Your task to perform on an android device: turn notification dots off Image 0: 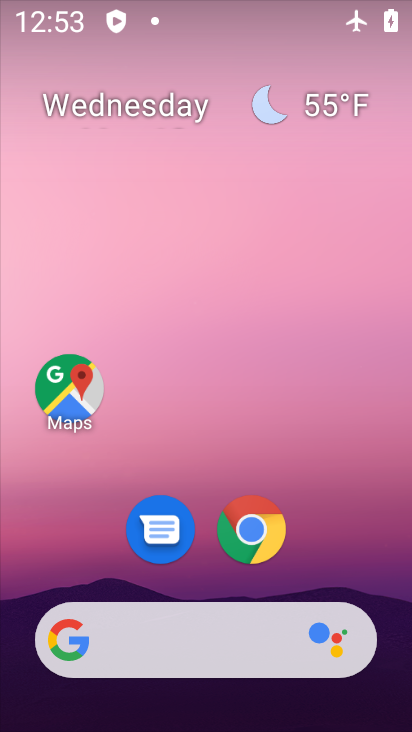
Step 0: drag from (229, 727) to (228, 123)
Your task to perform on an android device: turn notification dots off Image 1: 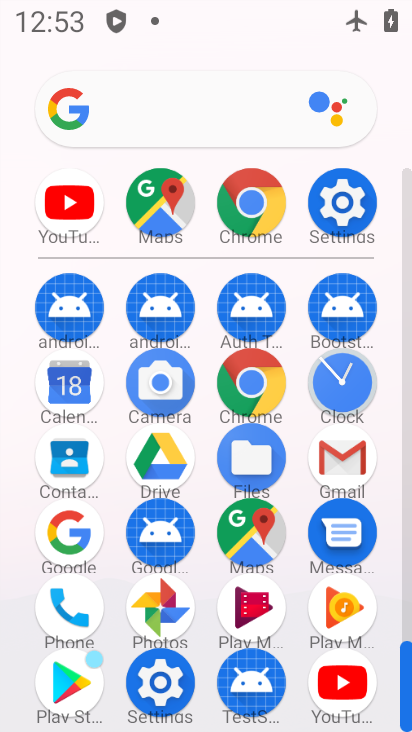
Step 1: click (334, 204)
Your task to perform on an android device: turn notification dots off Image 2: 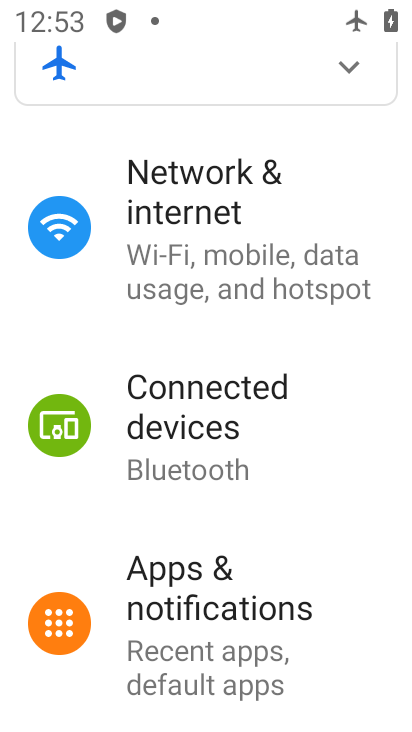
Step 2: click (210, 600)
Your task to perform on an android device: turn notification dots off Image 3: 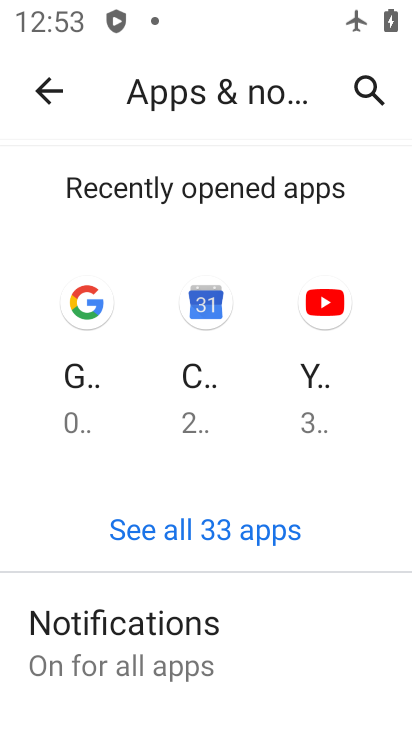
Step 3: drag from (189, 663) to (213, 356)
Your task to perform on an android device: turn notification dots off Image 4: 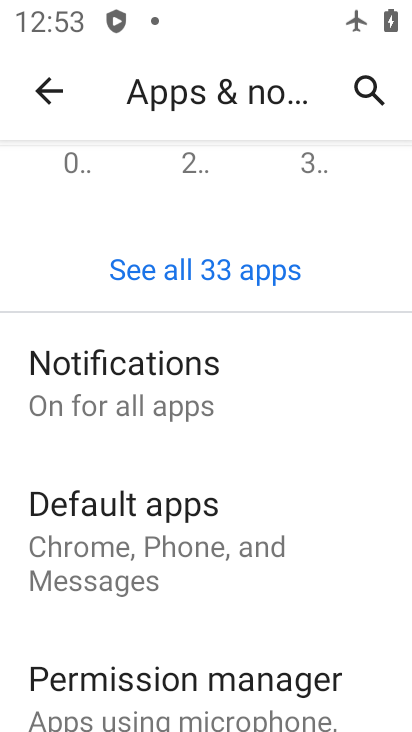
Step 4: click (164, 378)
Your task to perform on an android device: turn notification dots off Image 5: 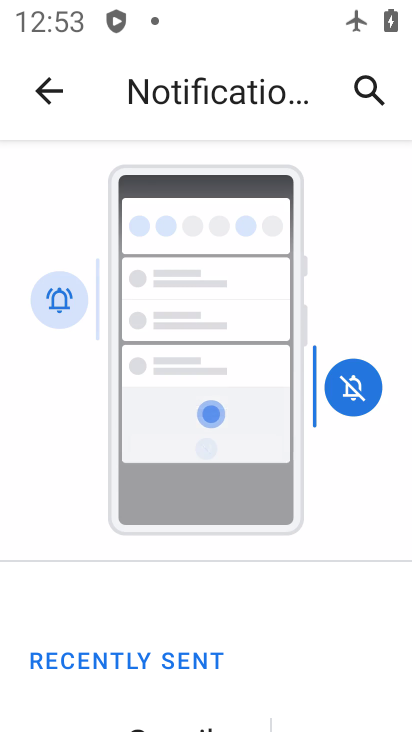
Step 5: drag from (253, 705) to (251, 400)
Your task to perform on an android device: turn notification dots off Image 6: 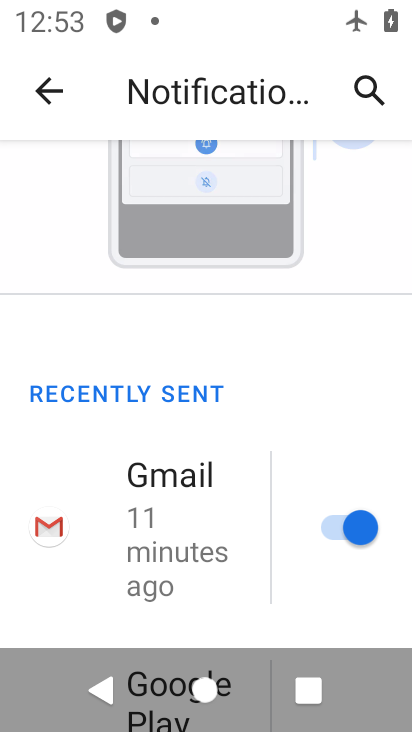
Step 6: drag from (257, 625) to (254, 351)
Your task to perform on an android device: turn notification dots off Image 7: 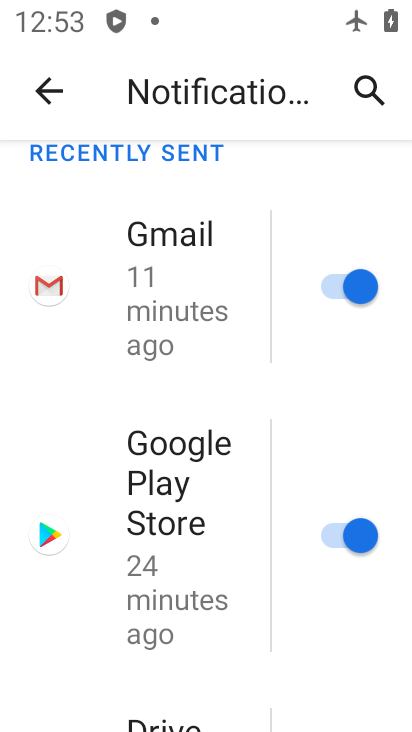
Step 7: drag from (239, 702) to (236, 373)
Your task to perform on an android device: turn notification dots off Image 8: 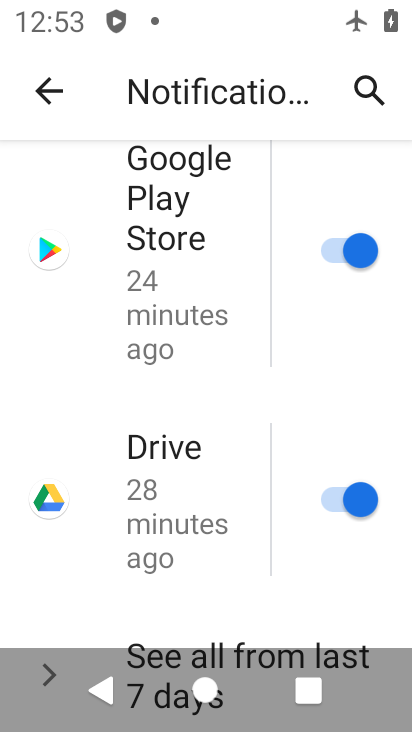
Step 8: drag from (241, 607) to (234, 297)
Your task to perform on an android device: turn notification dots off Image 9: 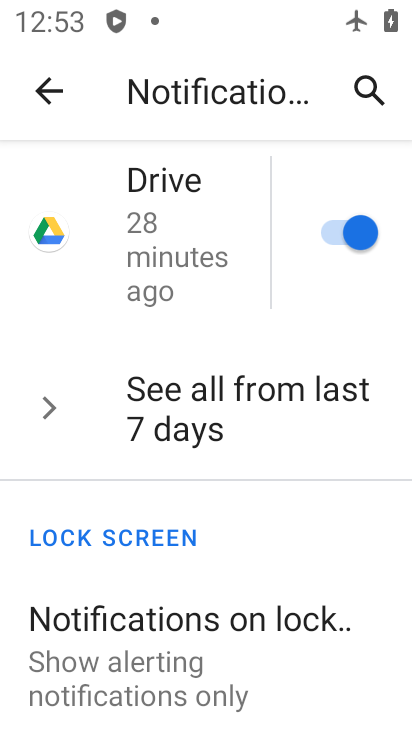
Step 9: drag from (261, 623) to (255, 350)
Your task to perform on an android device: turn notification dots off Image 10: 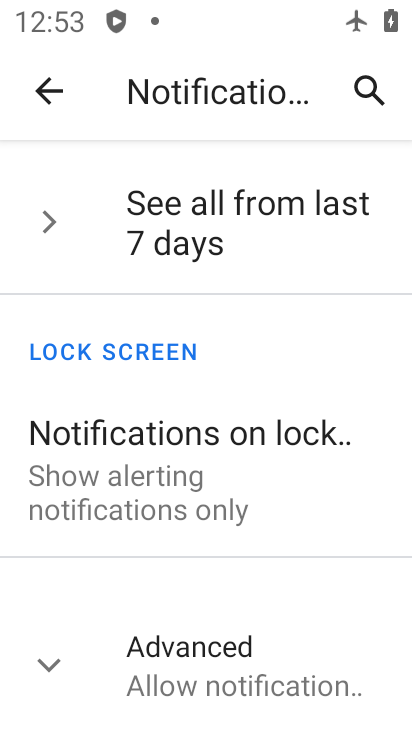
Step 10: click (241, 651)
Your task to perform on an android device: turn notification dots off Image 11: 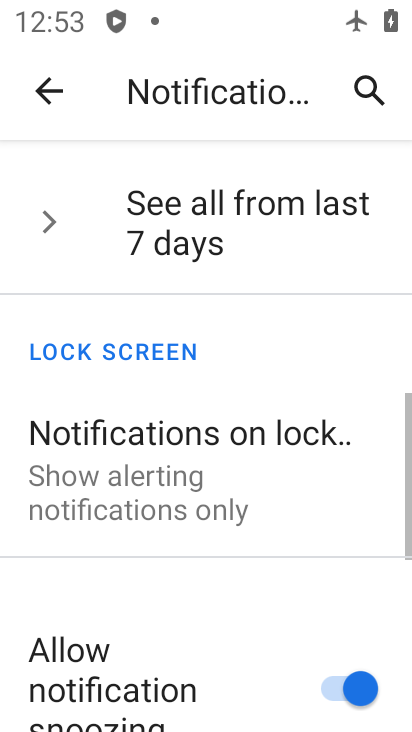
Step 11: drag from (247, 698) to (240, 330)
Your task to perform on an android device: turn notification dots off Image 12: 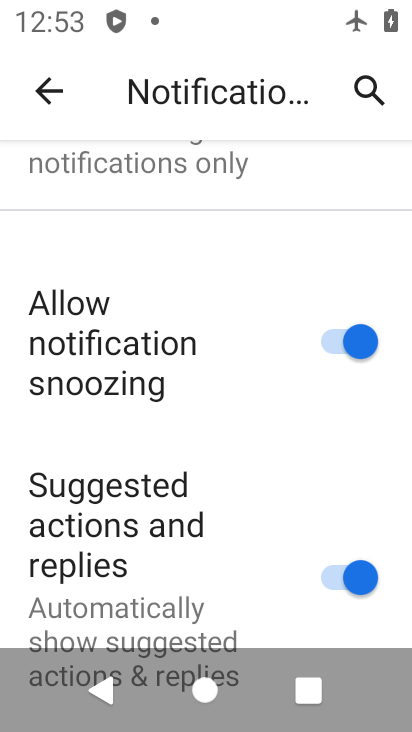
Step 12: drag from (266, 579) to (265, 317)
Your task to perform on an android device: turn notification dots off Image 13: 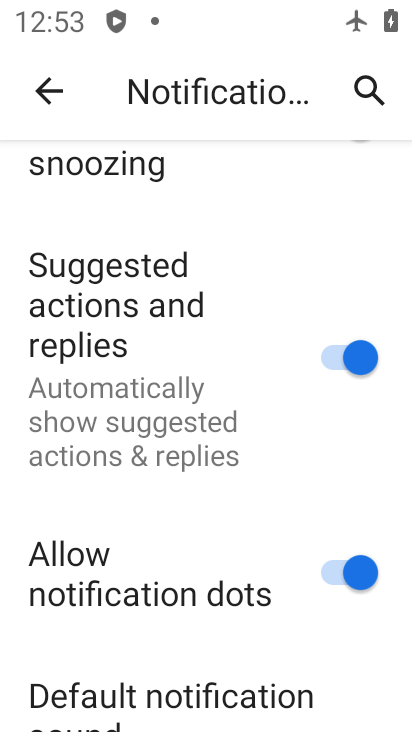
Step 13: click (339, 573)
Your task to perform on an android device: turn notification dots off Image 14: 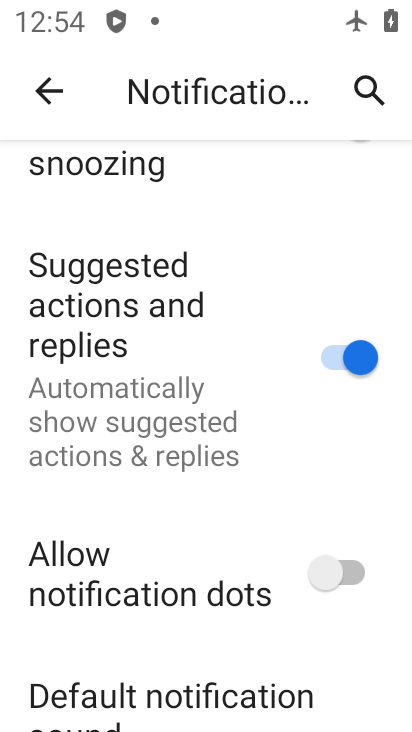
Step 14: task complete